Your task to perform on an android device: change the clock display to analog Image 0: 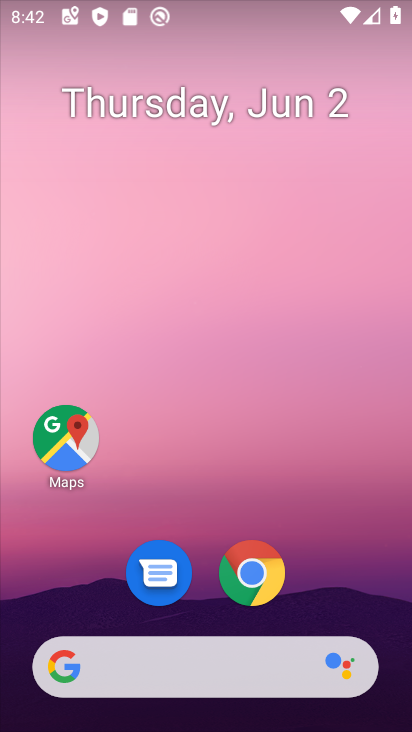
Step 0: drag from (341, 591) to (322, 5)
Your task to perform on an android device: change the clock display to analog Image 1: 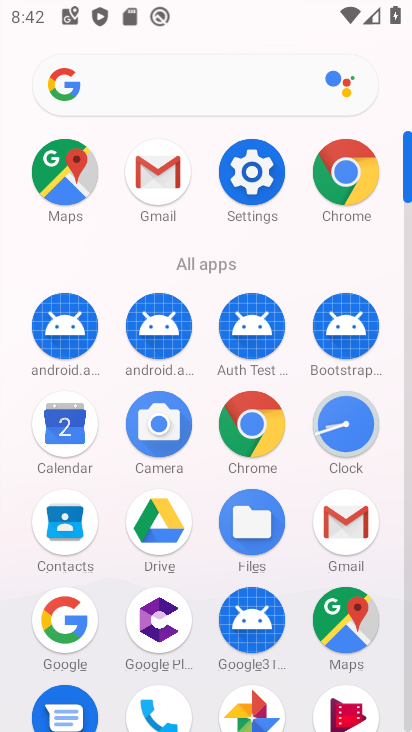
Step 1: click (344, 468)
Your task to perform on an android device: change the clock display to analog Image 2: 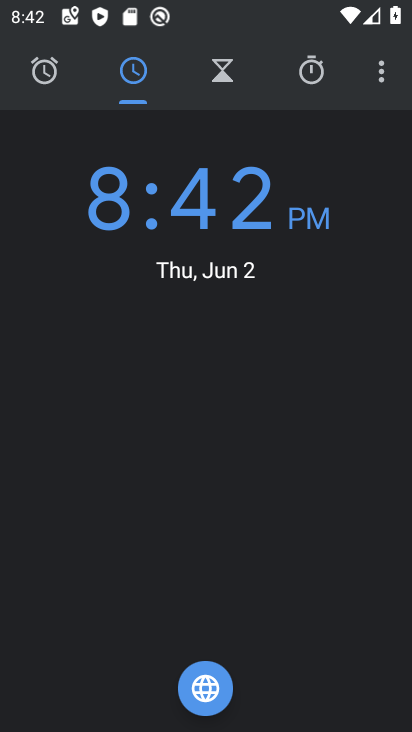
Step 2: click (366, 72)
Your task to perform on an android device: change the clock display to analog Image 3: 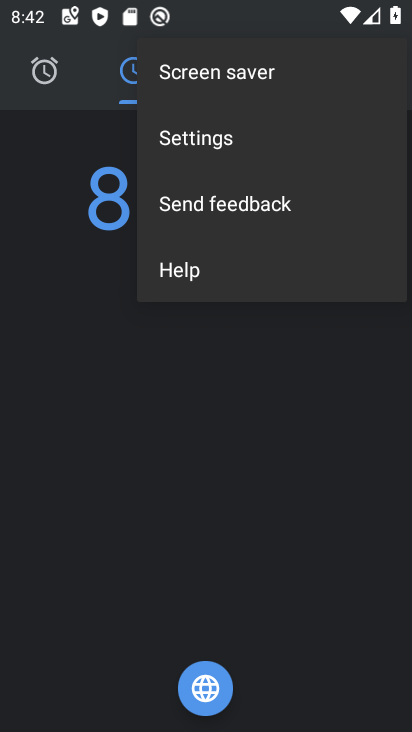
Step 3: click (263, 142)
Your task to perform on an android device: change the clock display to analog Image 4: 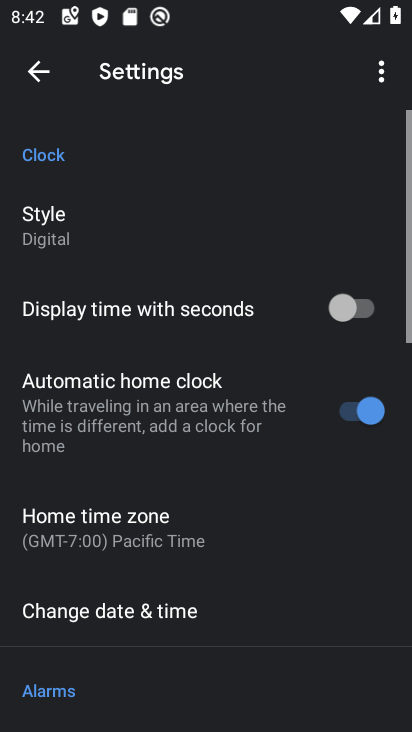
Step 4: click (42, 221)
Your task to perform on an android device: change the clock display to analog Image 5: 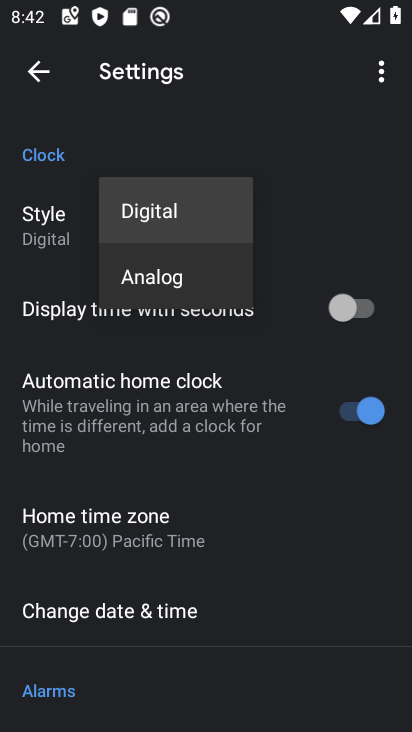
Step 5: click (149, 268)
Your task to perform on an android device: change the clock display to analog Image 6: 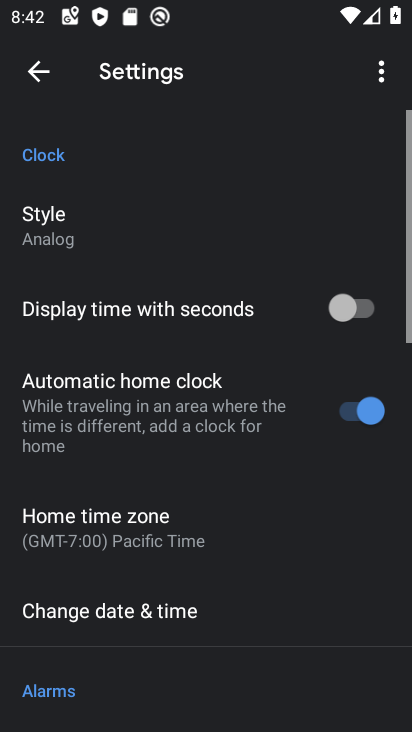
Step 6: task complete